Your task to perform on an android device: check battery use Image 0: 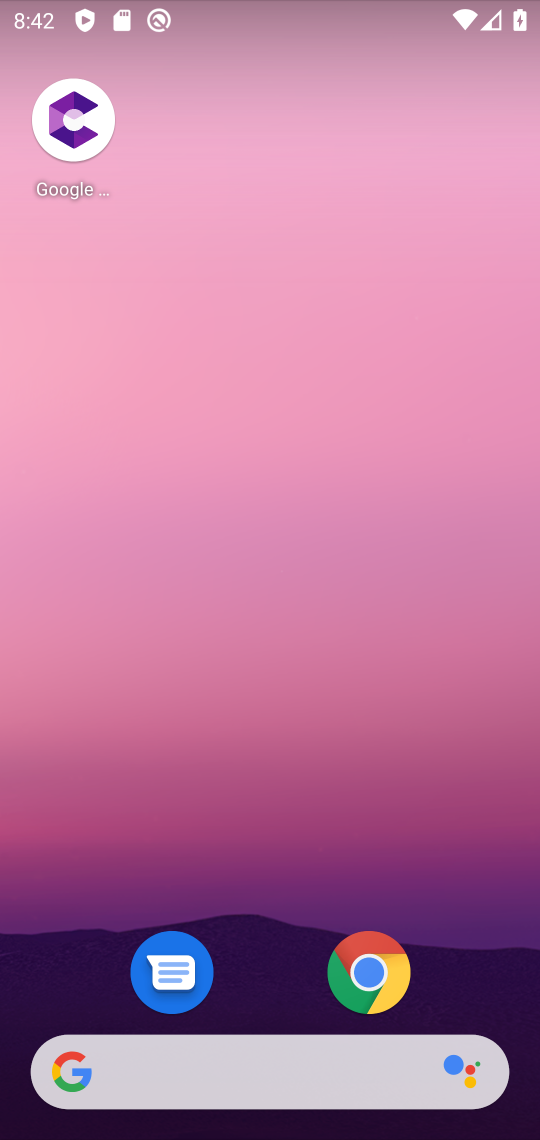
Step 0: drag from (279, 860) to (322, 1)
Your task to perform on an android device: check battery use Image 1: 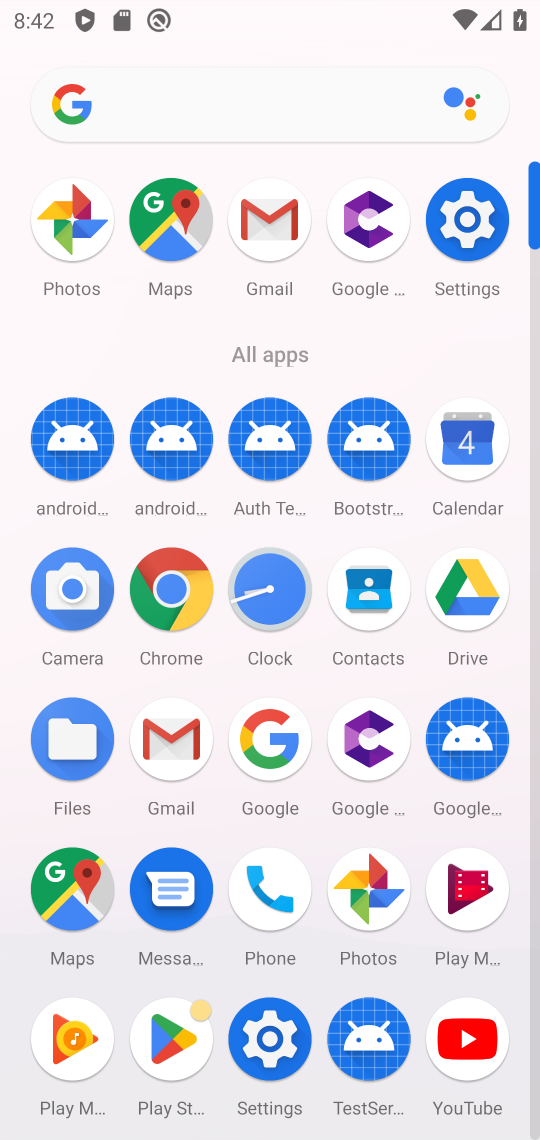
Step 1: click (470, 218)
Your task to perform on an android device: check battery use Image 2: 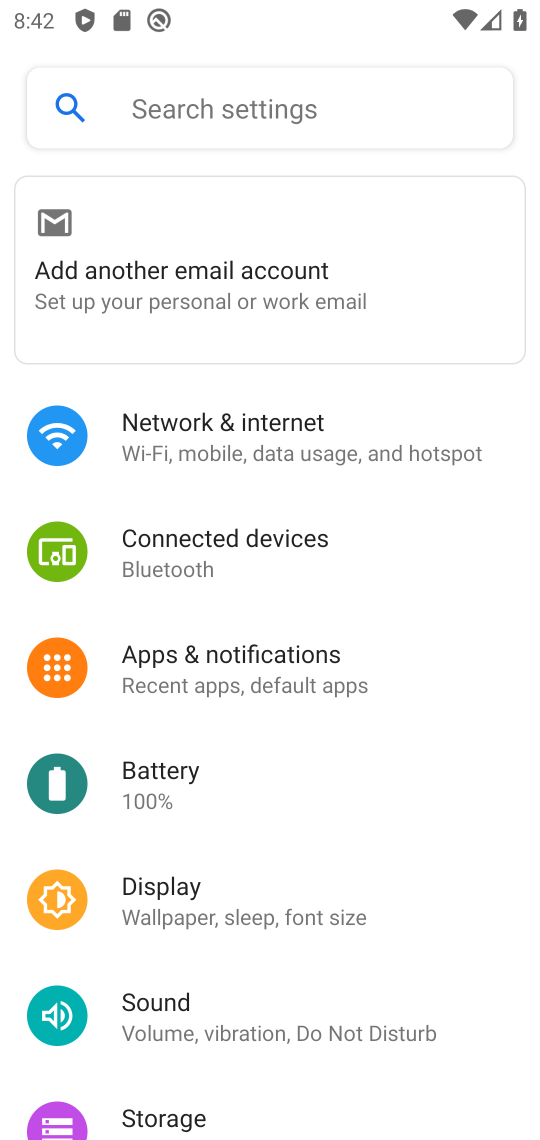
Step 2: drag from (347, 819) to (331, 606)
Your task to perform on an android device: check battery use Image 3: 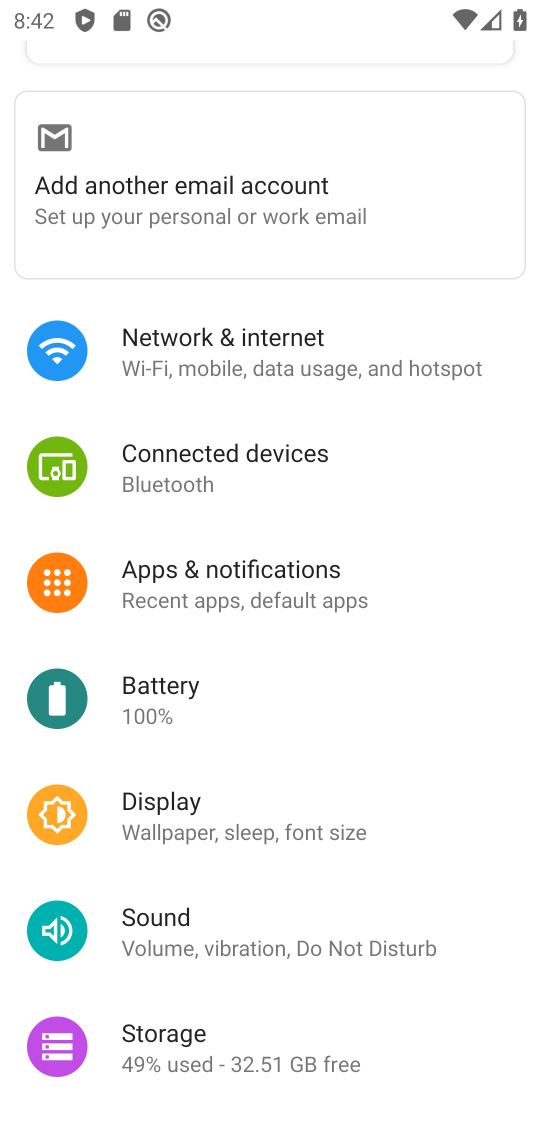
Step 3: click (226, 682)
Your task to perform on an android device: check battery use Image 4: 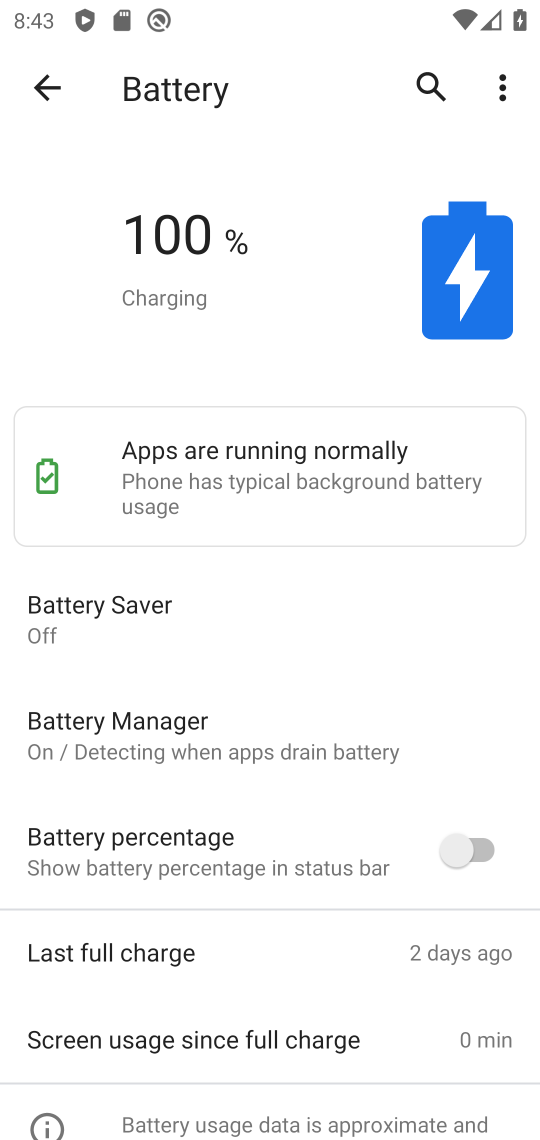
Step 4: click (503, 86)
Your task to perform on an android device: check battery use Image 5: 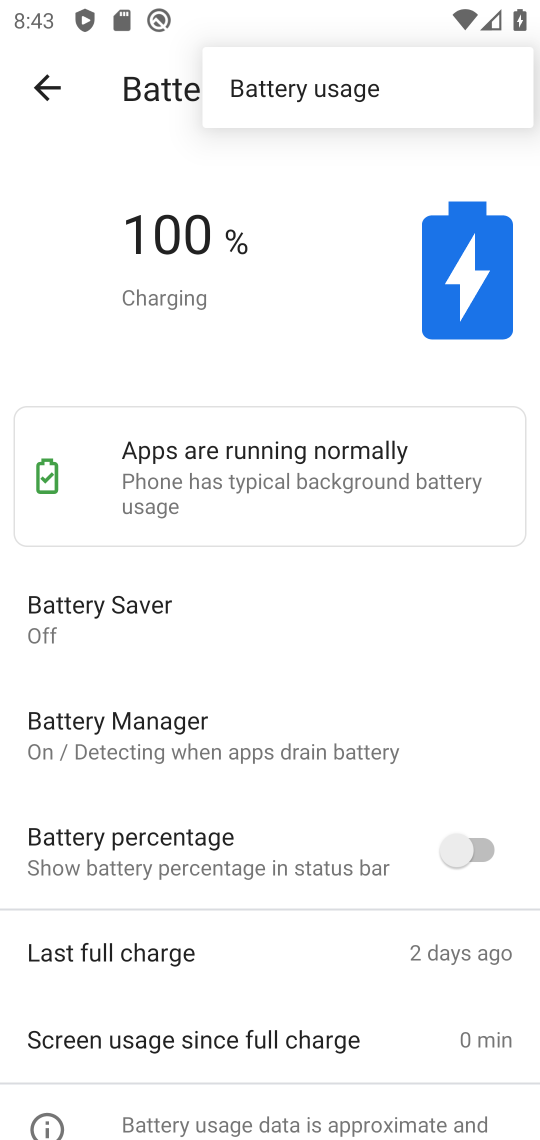
Step 5: click (382, 86)
Your task to perform on an android device: check battery use Image 6: 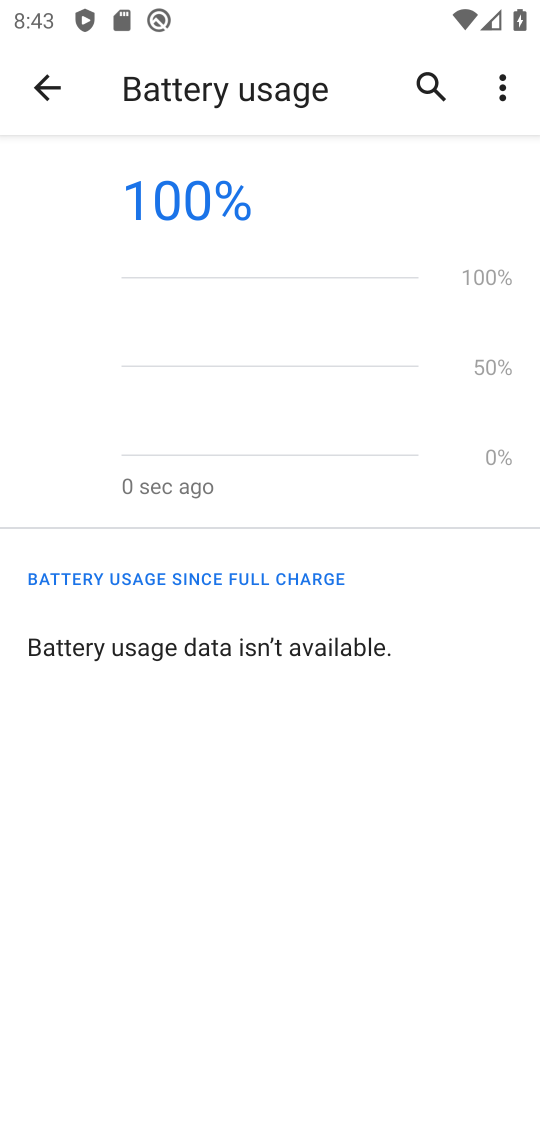
Step 6: task complete